Your task to perform on an android device: turn on sleep mode Image 0: 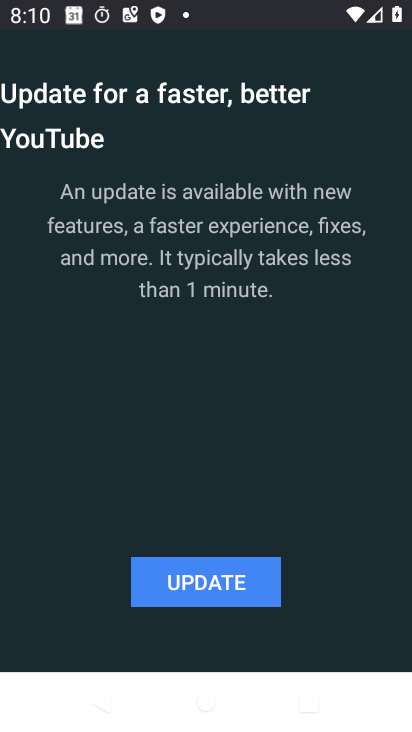
Step 0: click (359, 453)
Your task to perform on an android device: turn on sleep mode Image 1: 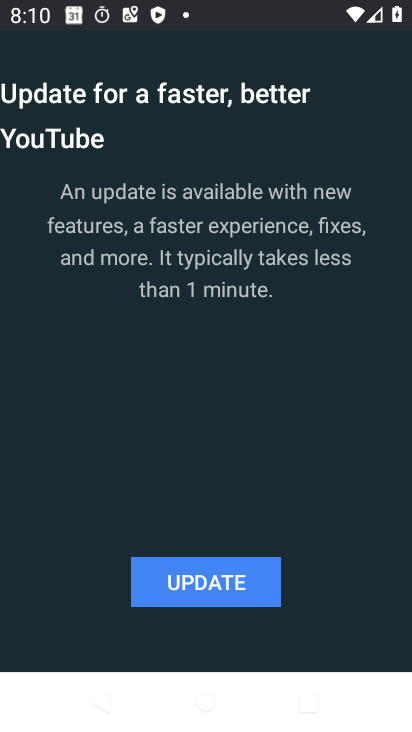
Step 1: press back button
Your task to perform on an android device: turn on sleep mode Image 2: 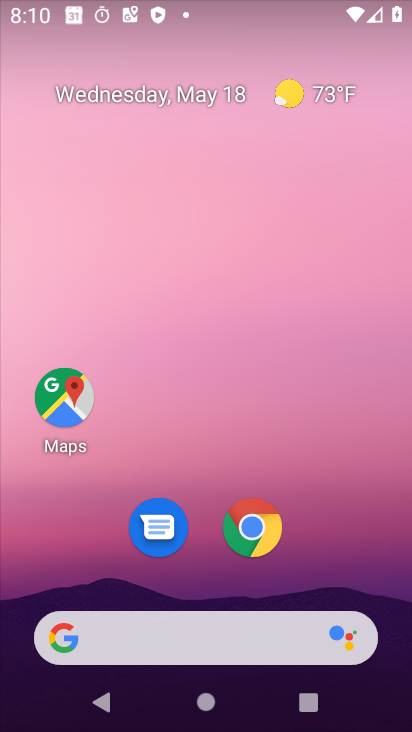
Step 2: drag from (383, 697) to (352, 54)
Your task to perform on an android device: turn on sleep mode Image 3: 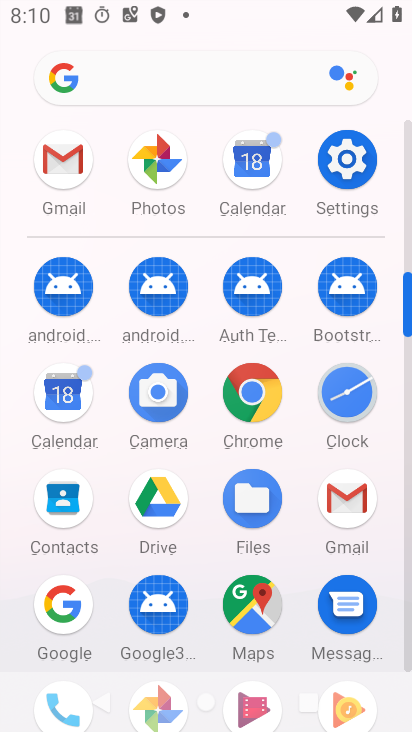
Step 3: click (348, 174)
Your task to perform on an android device: turn on sleep mode Image 4: 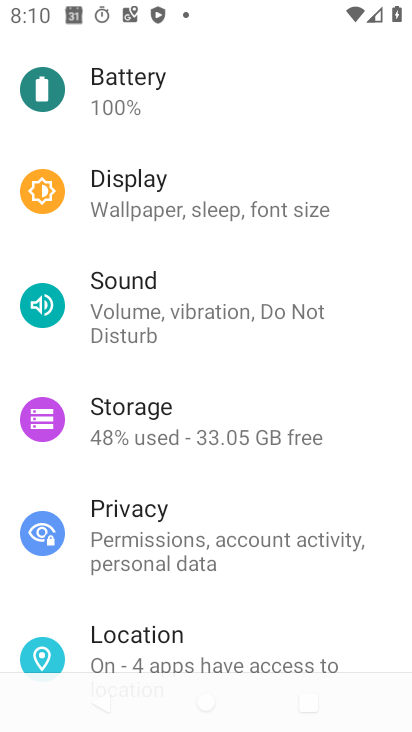
Step 4: click (161, 185)
Your task to perform on an android device: turn on sleep mode Image 5: 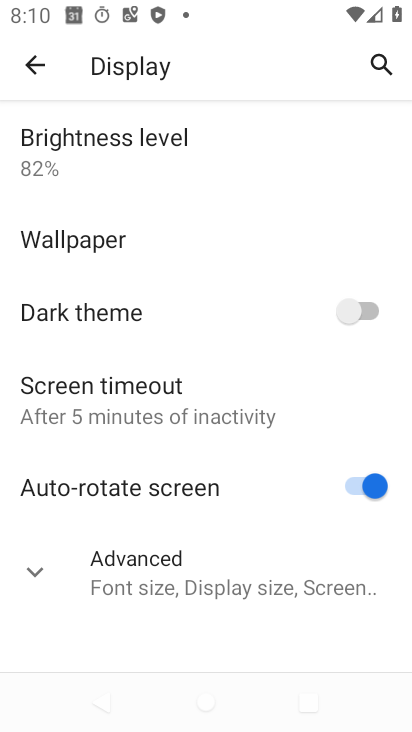
Step 5: click (108, 384)
Your task to perform on an android device: turn on sleep mode Image 6: 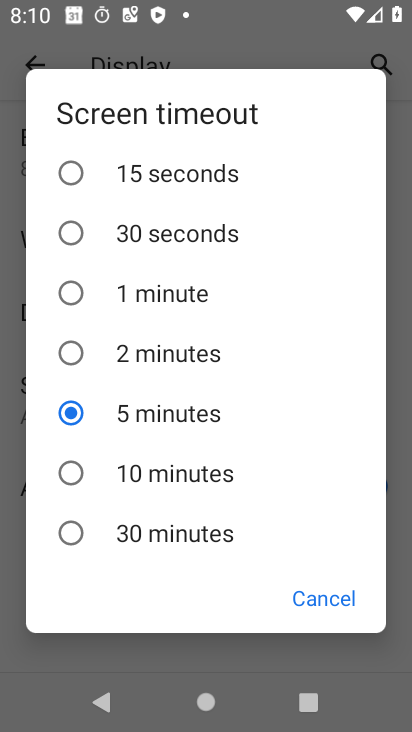
Step 6: task complete